Your task to perform on an android device: toggle show notifications on the lock screen Image 0: 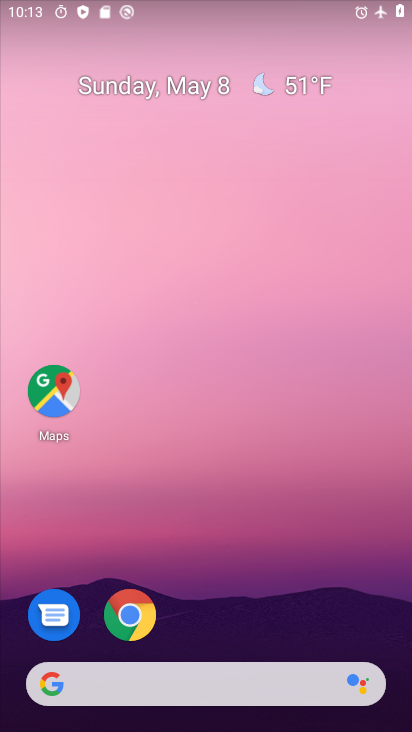
Step 0: drag from (204, 604) to (206, 3)
Your task to perform on an android device: toggle show notifications on the lock screen Image 1: 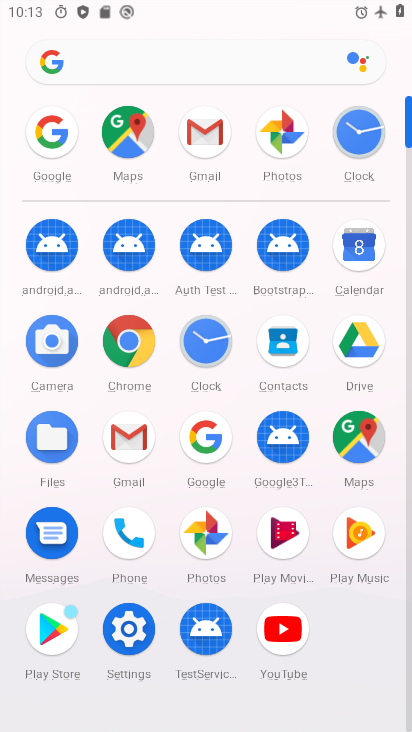
Step 1: click (143, 642)
Your task to perform on an android device: toggle show notifications on the lock screen Image 2: 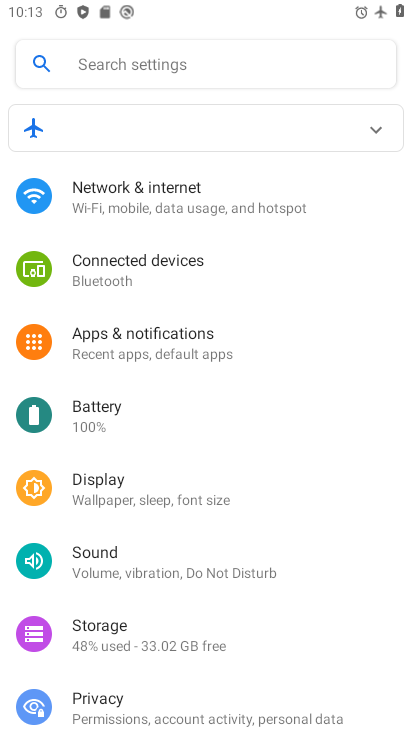
Step 2: click (177, 343)
Your task to perform on an android device: toggle show notifications on the lock screen Image 3: 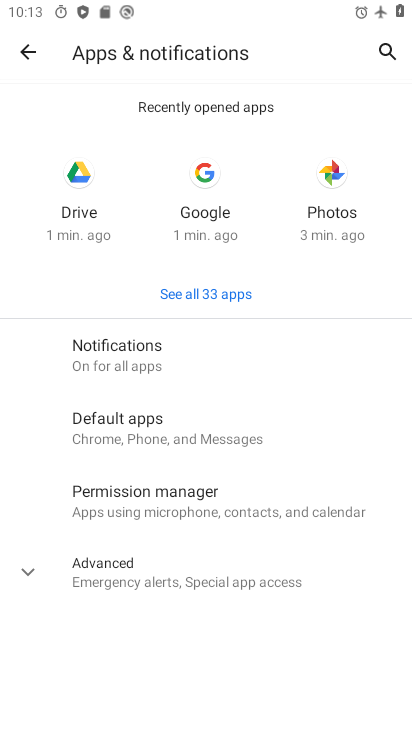
Step 3: click (164, 370)
Your task to perform on an android device: toggle show notifications on the lock screen Image 4: 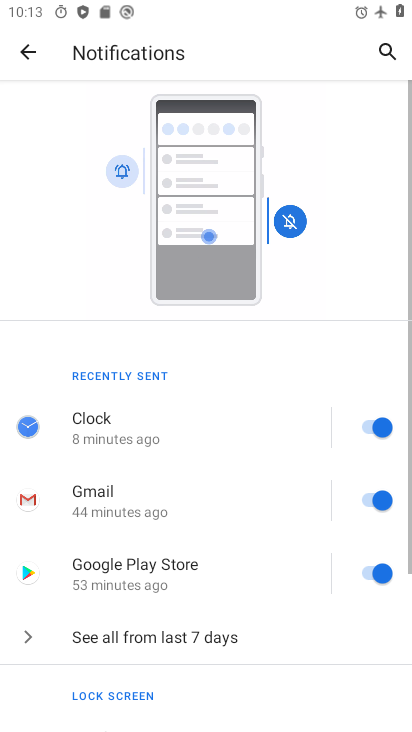
Step 4: drag from (207, 609) to (194, 198)
Your task to perform on an android device: toggle show notifications on the lock screen Image 5: 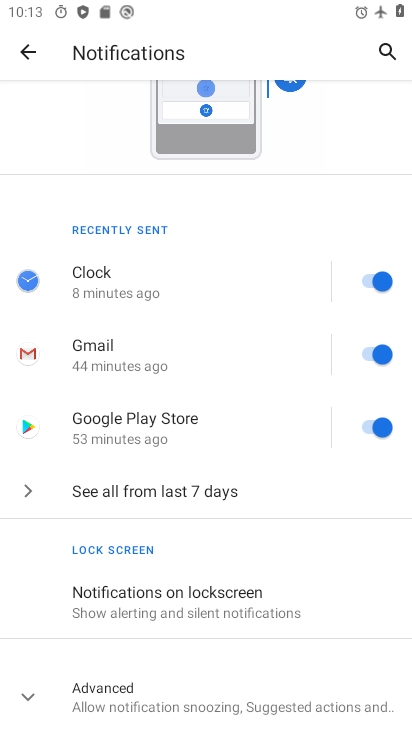
Step 5: click (202, 695)
Your task to perform on an android device: toggle show notifications on the lock screen Image 6: 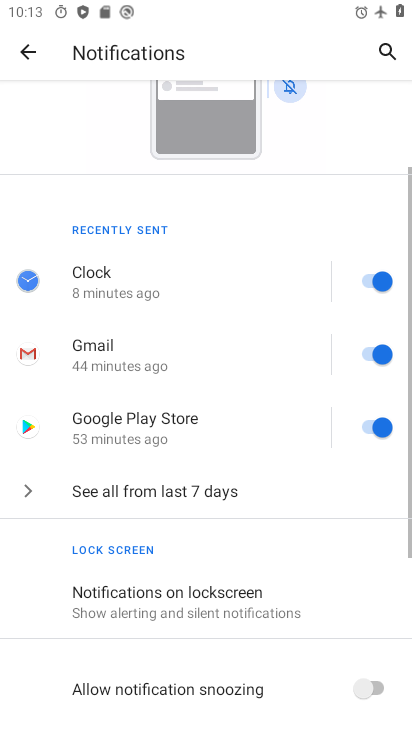
Step 6: click (192, 602)
Your task to perform on an android device: toggle show notifications on the lock screen Image 7: 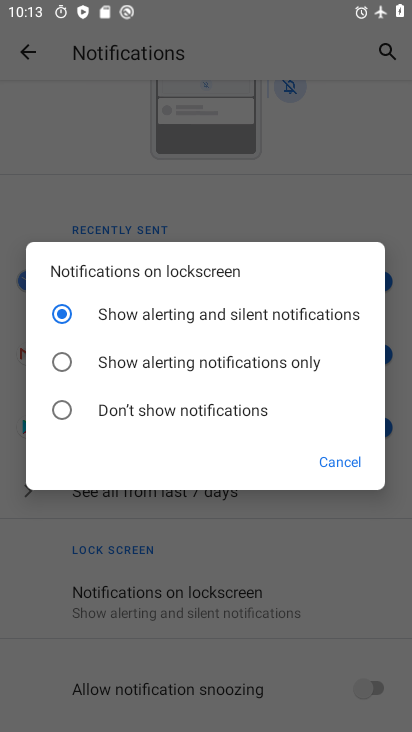
Step 7: click (215, 421)
Your task to perform on an android device: toggle show notifications on the lock screen Image 8: 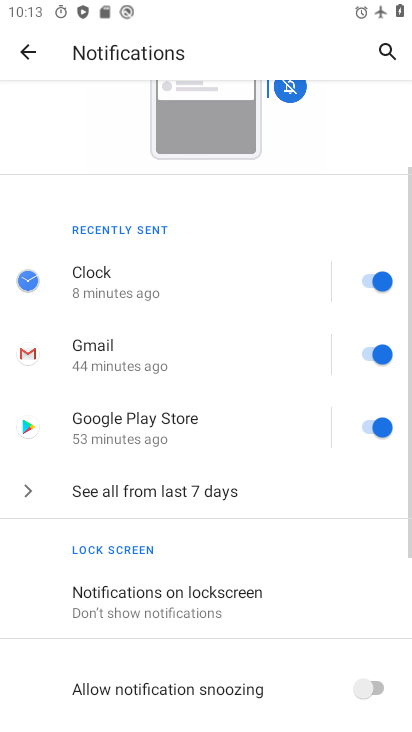
Step 8: task complete